Your task to perform on an android device: turn smart compose on in the gmail app Image 0: 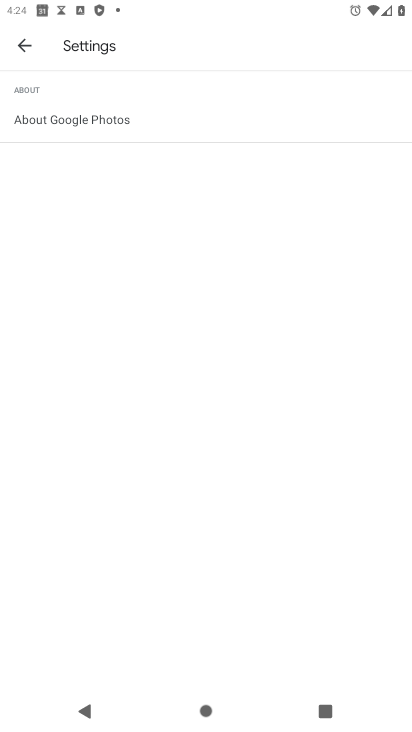
Step 0: press home button
Your task to perform on an android device: turn smart compose on in the gmail app Image 1: 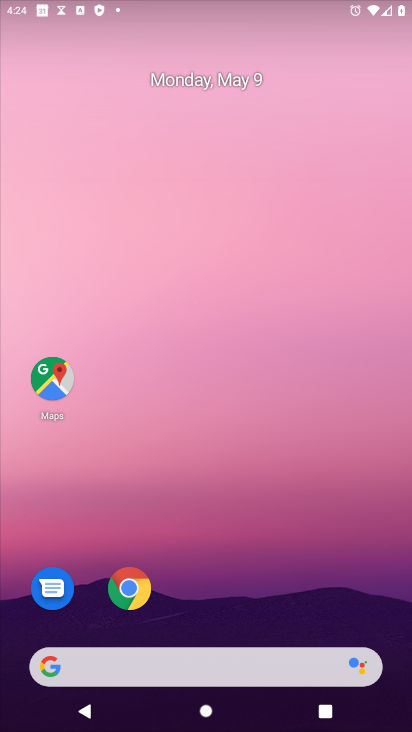
Step 1: drag from (262, 605) to (213, 90)
Your task to perform on an android device: turn smart compose on in the gmail app Image 2: 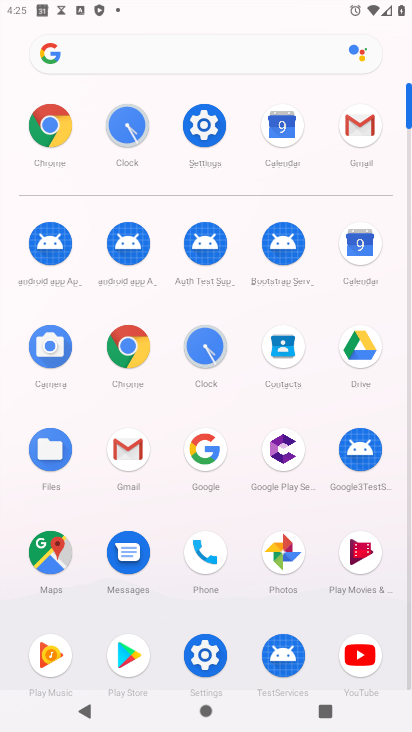
Step 2: click (131, 453)
Your task to perform on an android device: turn smart compose on in the gmail app Image 3: 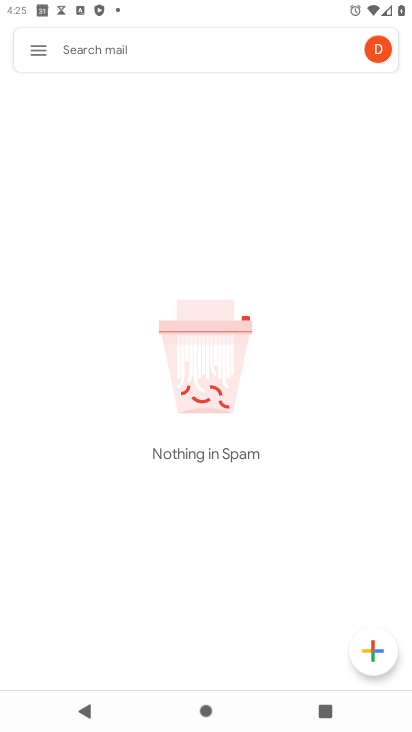
Step 3: click (46, 49)
Your task to perform on an android device: turn smart compose on in the gmail app Image 4: 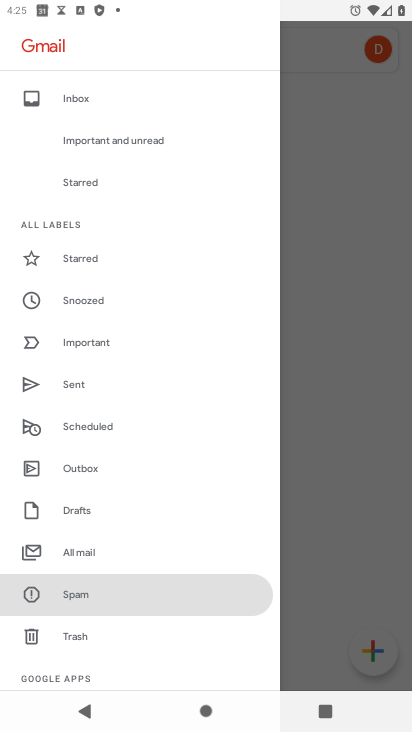
Step 4: drag from (124, 603) to (124, 189)
Your task to perform on an android device: turn smart compose on in the gmail app Image 5: 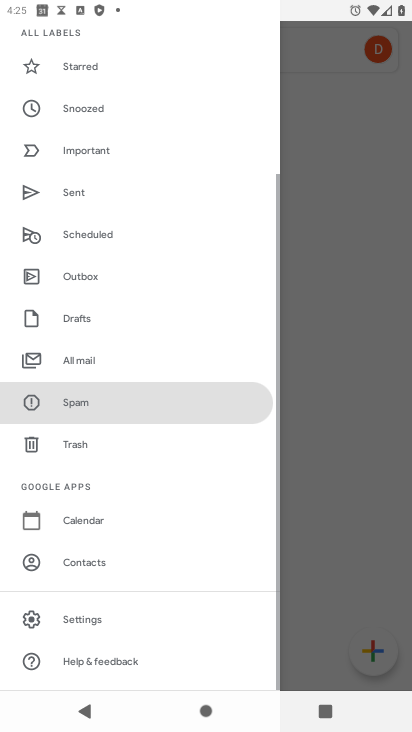
Step 5: click (99, 617)
Your task to perform on an android device: turn smart compose on in the gmail app Image 6: 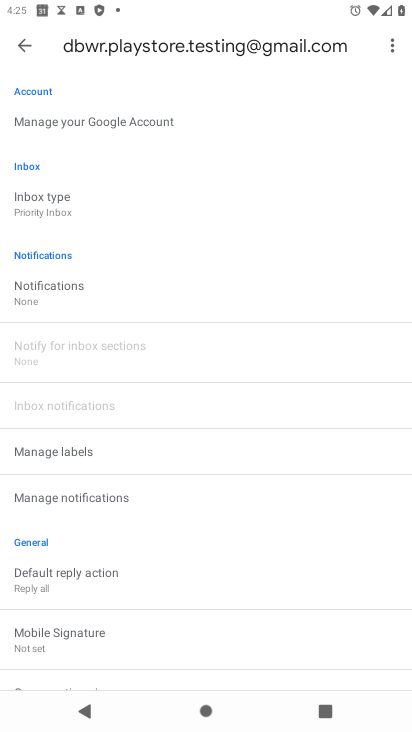
Step 6: task complete